Your task to perform on an android device: toggle notification dots Image 0: 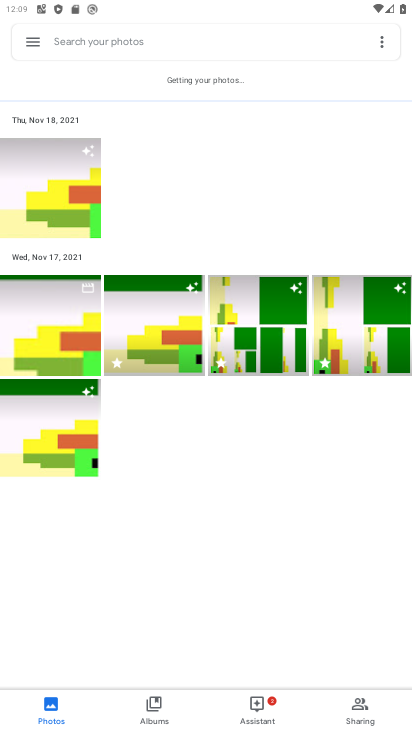
Step 0: press home button
Your task to perform on an android device: toggle notification dots Image 1: 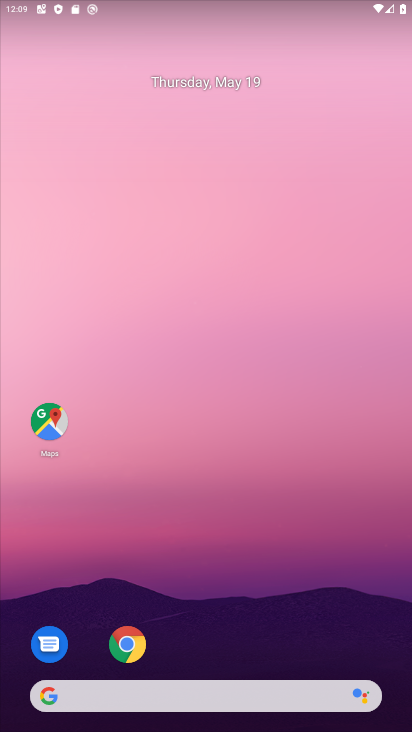
Step 1: drag from (377, 636) to (361, 235)
Your task to perform on an android device: toggle notification dots Image 2: 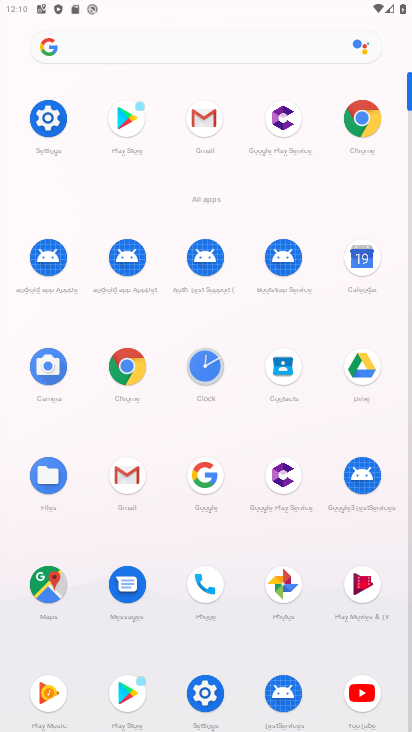
Step 2: click (203, 690)
Your task to perform on an android device: toggle notification dots Image 3: 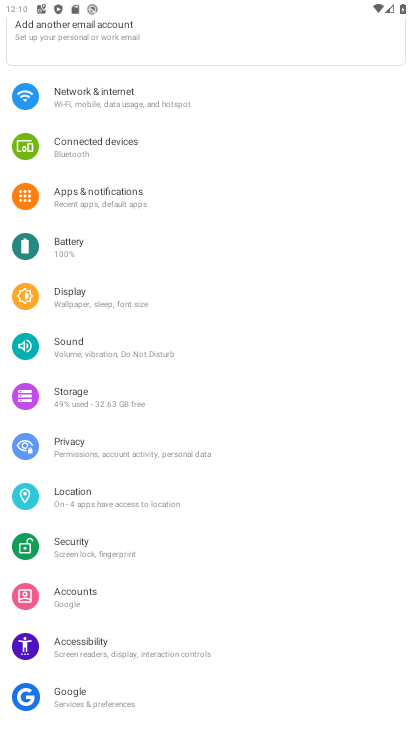
Step 3: click (157, 203)
Your task to perform on an android device: toggle notification dots Image 4: 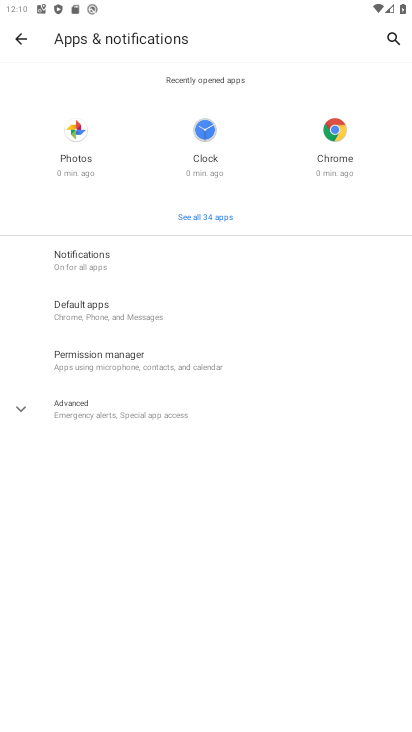
Step 4: click (143, 273)
Your task to perform on an android device: toggle notification dots Image 5: 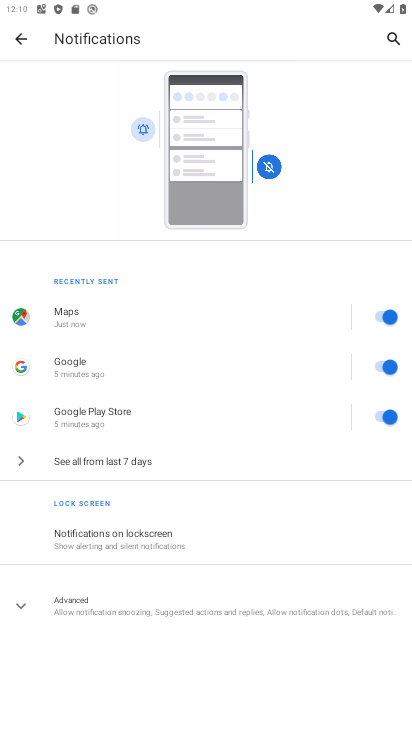
Step 5: click (178, 542)
Your task to perform on an android device: toggle notification dots Image 6: 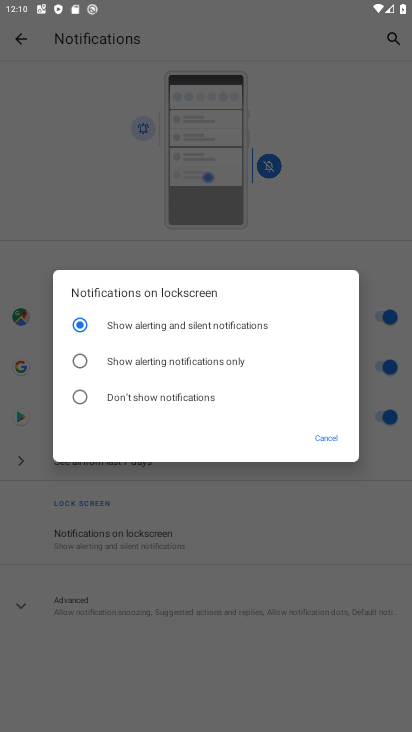
Step 6: click (317, 434)
Your task to perform on an android device: toggle notification dots Image 7: 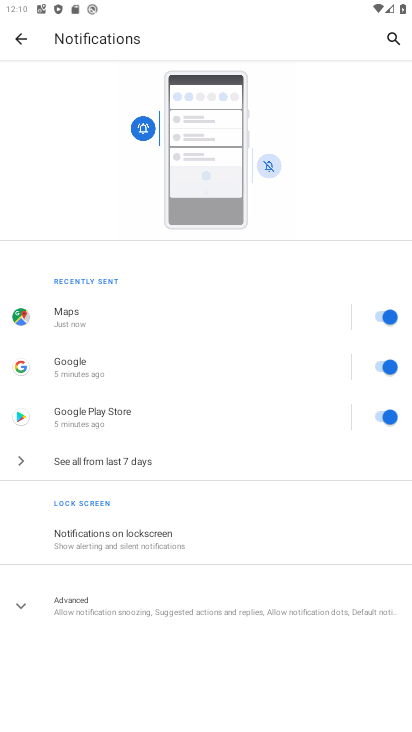
Step 7: click (229, 579)
Your task to perform on an android device: toggle notification dots Image 8: 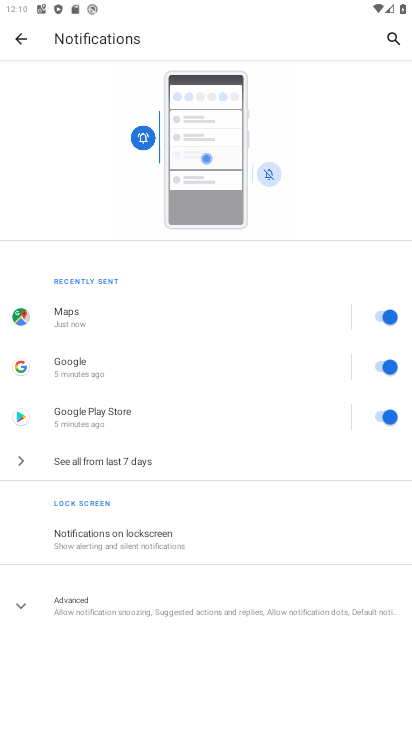
Step 8: click (171, 608)
Your task to perform on an android device: toggle notification dots Image 9: 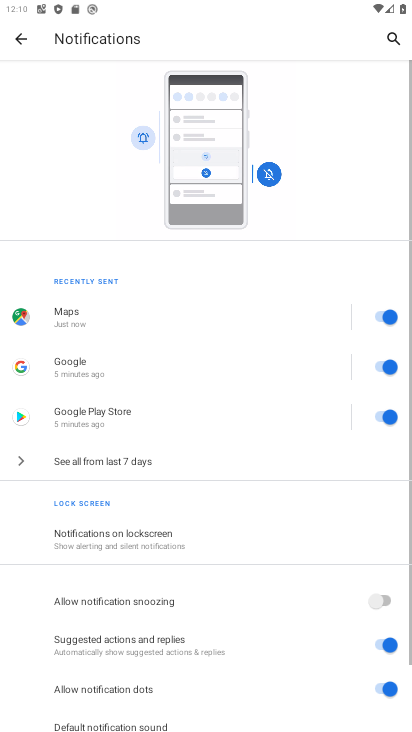
Step 9: drag from (250, 663) to (270, 508)
Your task to perform on an android device: toggle notification dots Image 10: 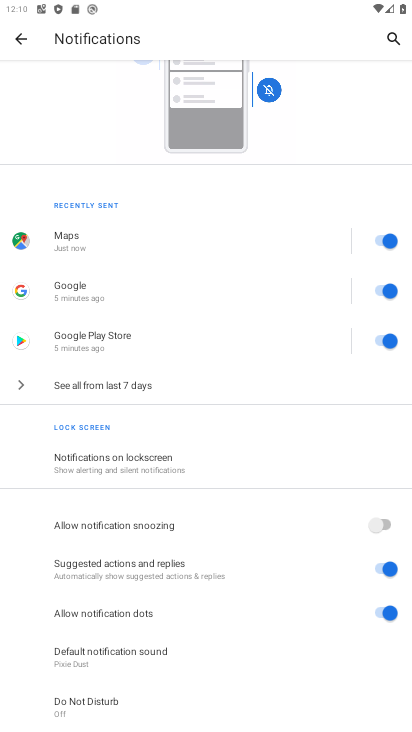
Step 10: click (381, 612)
Your task to perform on an android device: toggle notification dots Image 11: 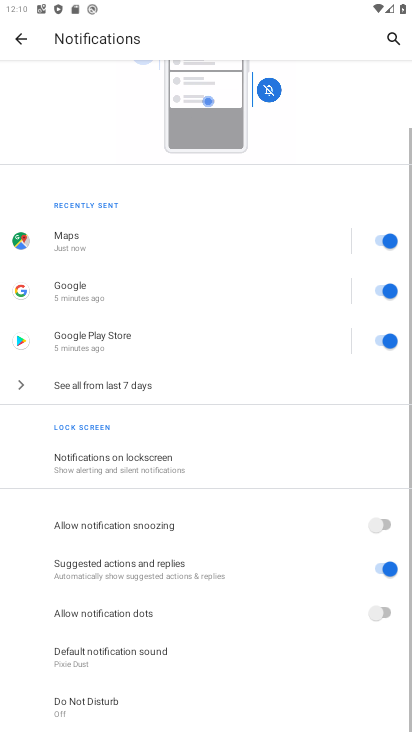
Step 11: task complete